Your task to perform on an android device: Go to calendar. Show me events next week Image 0: 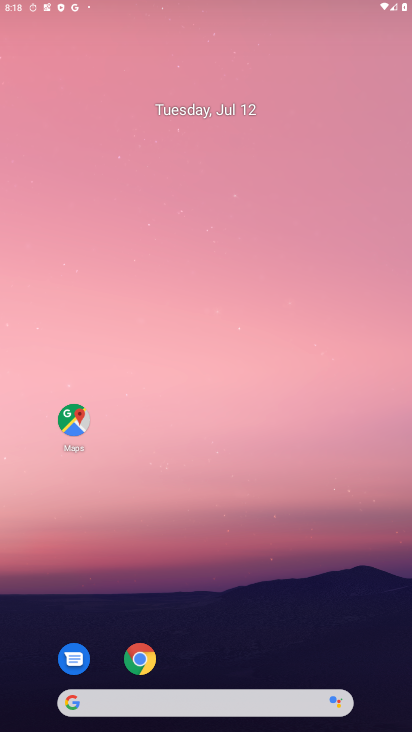
Step 0: drag from (264, 708) to (177, 234)
Your task to perform on an android device: Go to calendar. Show me events next week Image 1: 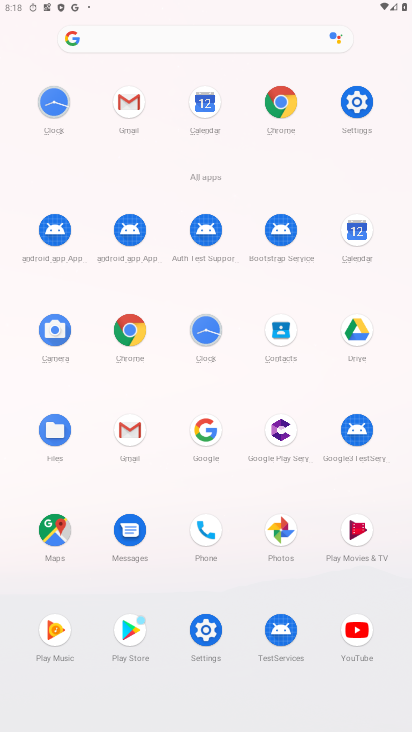
Step 1: click (351, 235)
Your task to perform on an android device: Go to calendar. Show me events next week Image 2: 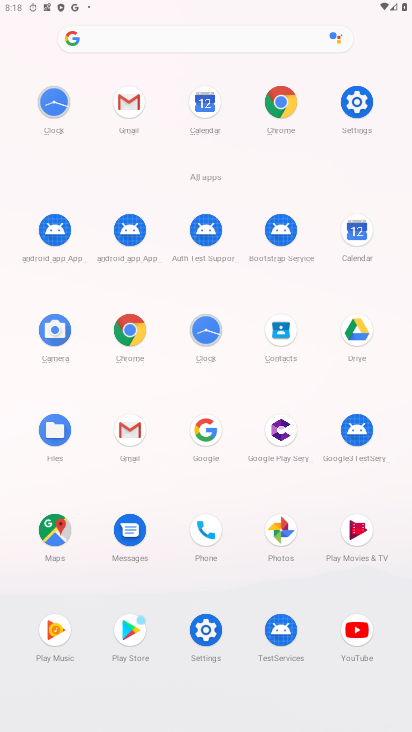
Step 2: click (351, 235)
Your task to perform on an android device: Go to calendar. Show me events next week Image 3: 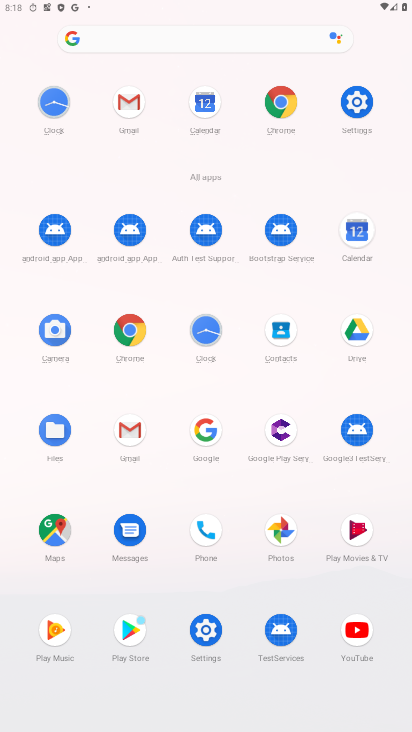
Step 3: click (353, 233)
Your task to perform on an android device: Go to calendar. Show me events next week Image 4: 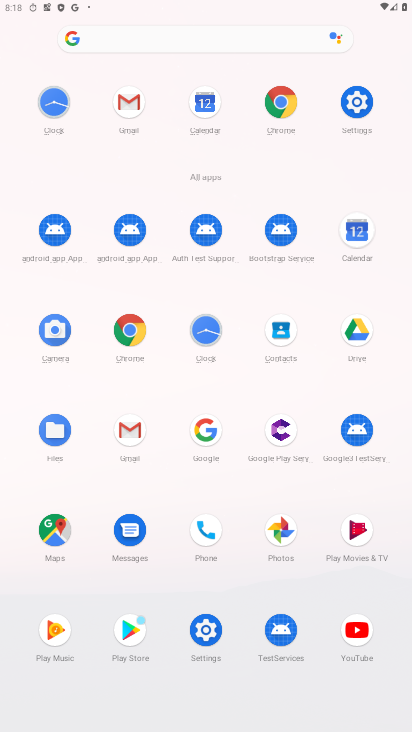
Step 4: click (353, 233)
Your task to perform on an android device: Go to calendar. Show me events next week Image 5: 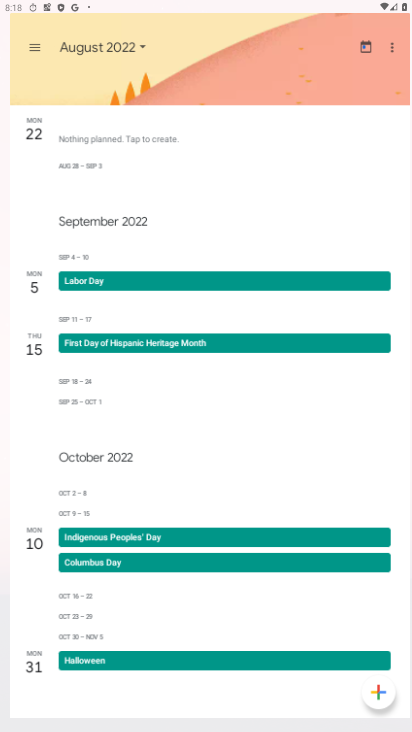
Step 5: click (359, 236)
Your task to perform on an android device: Go to calendar. Show me events next week Image 6: 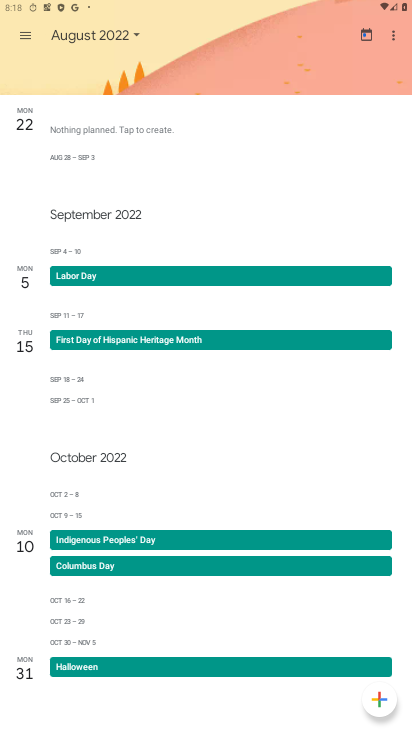
Step 6: click (359, 236)
Your task to perform on an android device: Go to calendar. Show me events next week Image 7: 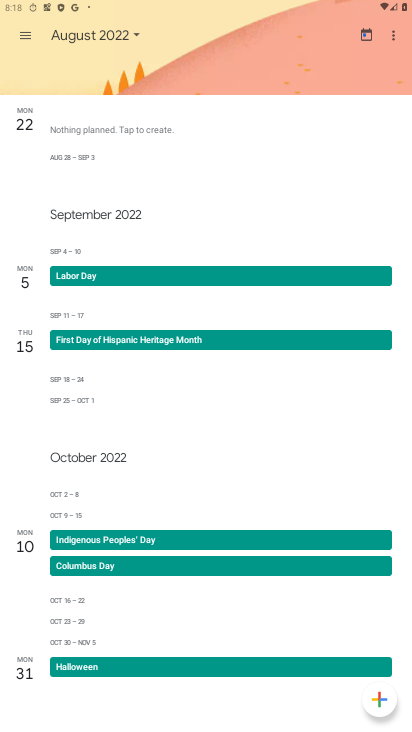
Step 7: click (136, 32)
Your task to perform on an android device: Go to calendar. Show me events next week Image 8: 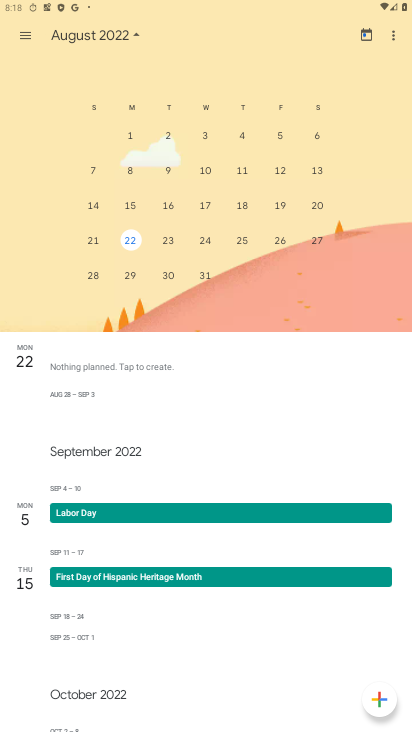
Step 8: drag from (114, 199) to (396, 94)
Your task to perform on an android device: Go to calendar. Show me events next week Image 9: 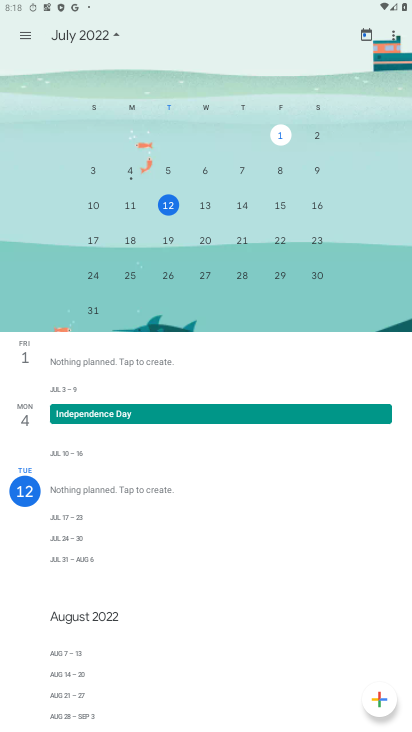
Step 9: click (170, 249)
Your task to perform on an android device: Go to calendar. Show me events next week Image 10: 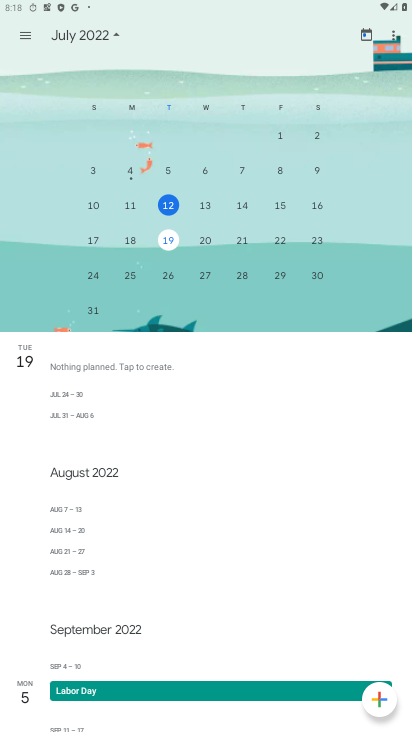
Step 10: click (169, 247)
Your task to perform on an android device: Go to calendar. Show me events next week Image 11: 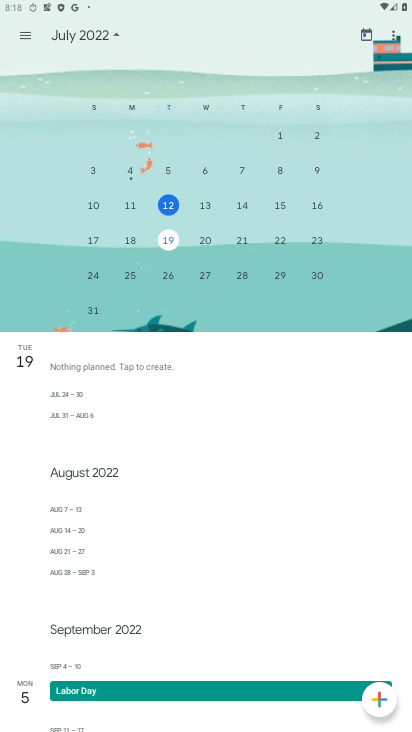
Step 11: click (173, 251)
Your task to perform on an android device: Go to calendar. Show me events next week Image 12: 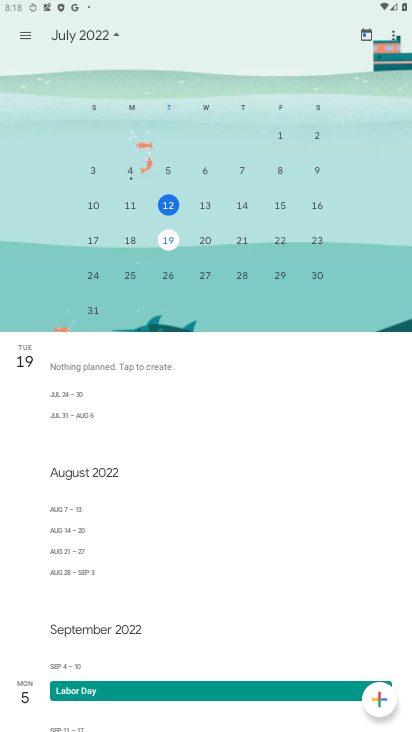
Step 12: click (177, 253)
Your task to perform on an android device: Go to calendar. Show me events next week Image 13: 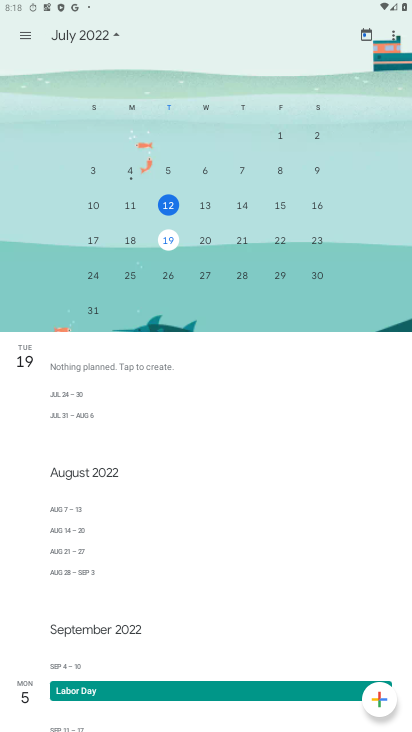
Step 13: click (174, 243)
Your task to perform on an android device: Go to calendar. Show me events next week Image 14: 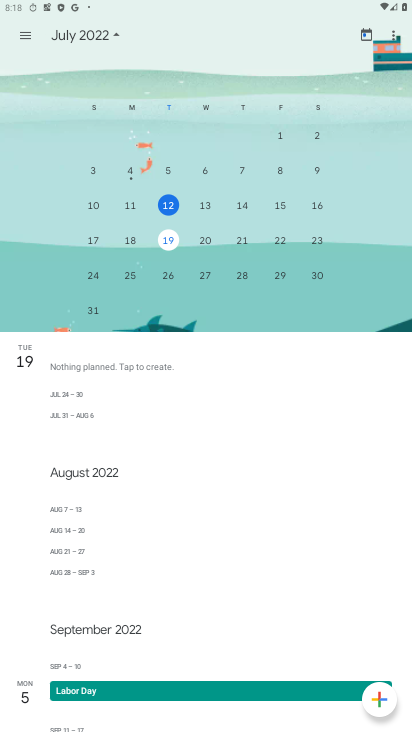
Step 14: task complete